Your task to perform on an android device: Go to accessibility settings Image 0: 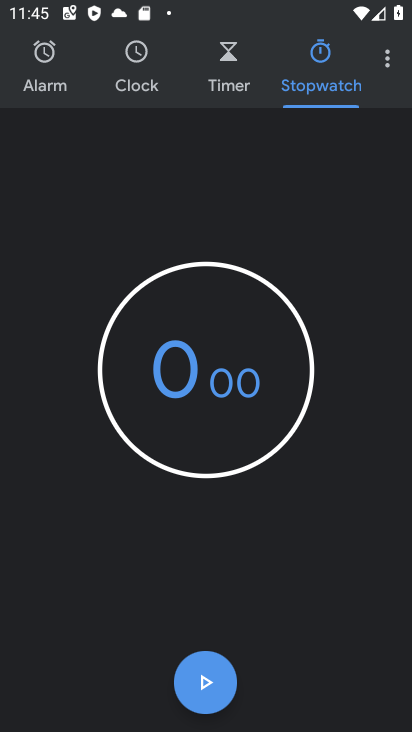
Step 0: press home button
Your task to perform on an android device: Go to accessibility settings Image 1: 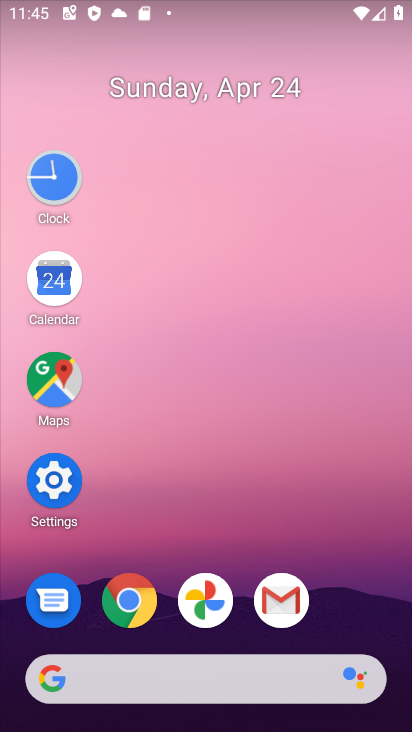
Step 1: click (53, 481)
Your task to perform on an android device: Go to accessibility settings Image 2: 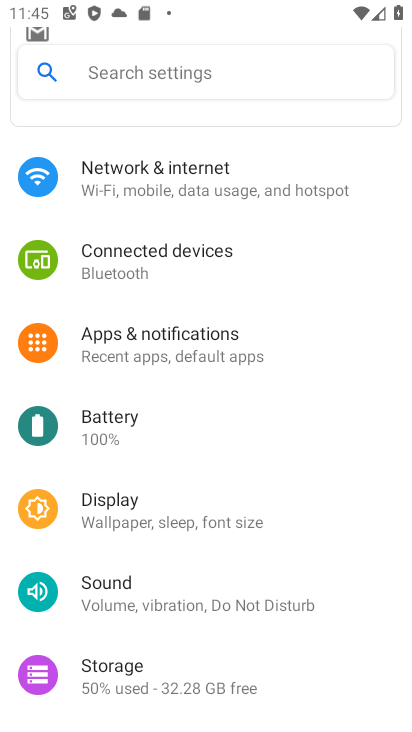
Step 2: drag from (204, 572) to (160, 100)
Your task to perform on an android device: Go to accessibility settings Image 3: 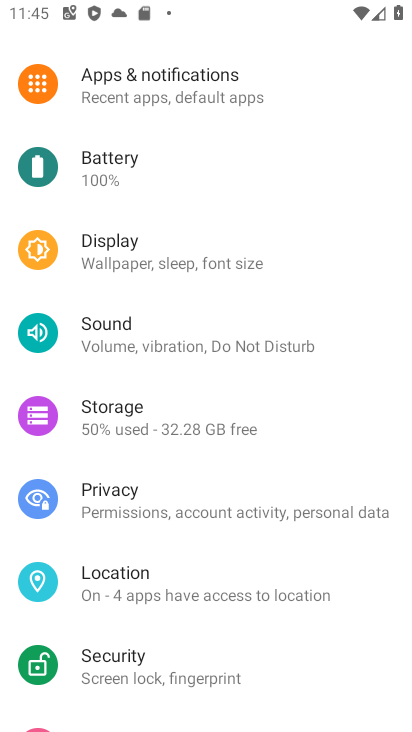
Step 3: drag from (230, 623) to (173, 237)
Your task to perform on an android device: Go to accessibility settings Image 4: 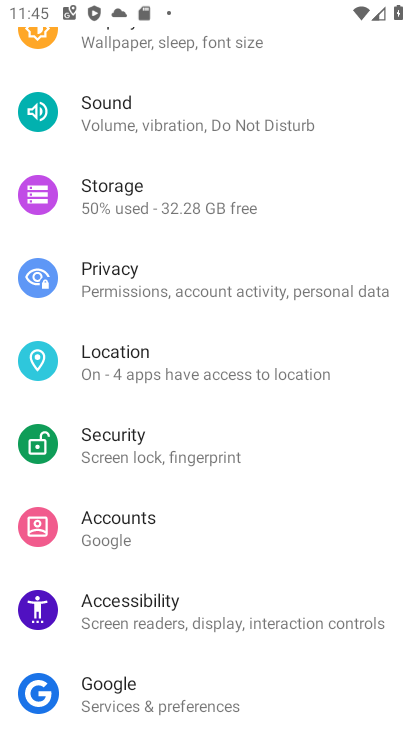
Step 4: click (126, 599)
Your task to perform on an android device: Go to accessibility settings Image 5: 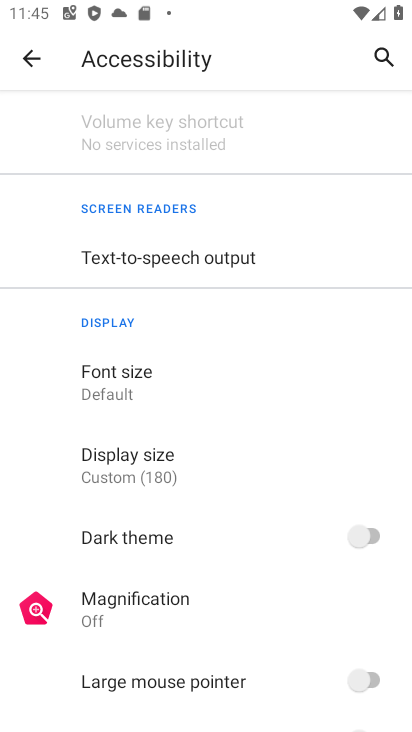
Step 5: task complete